Your task to perform on an android device: Go to display settings Image 0: 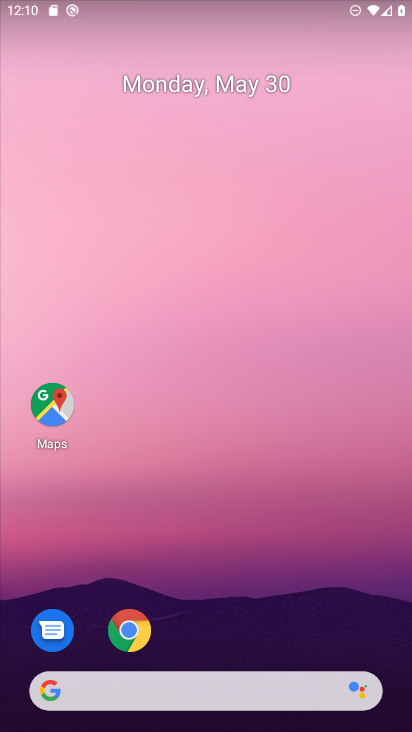
Step 0: drag from (178, 604) to (39, 206)
Your task to perform on an android device: Go to display settings Image 1: 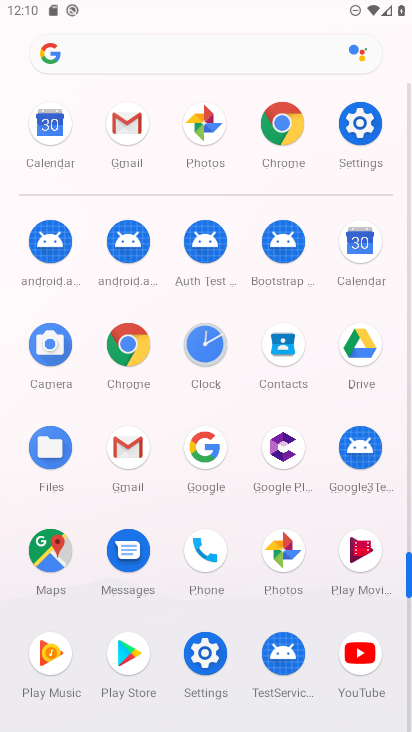
Step 1: click (356, 130)
Your task to perform on an android device: Go to display settings Image 2: 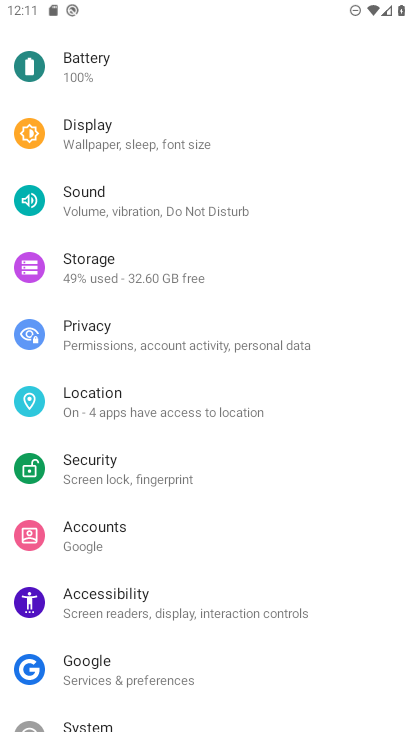
Step 2: click (85, 126)
Your task to perform on an android device: Go to display settings Image 3: 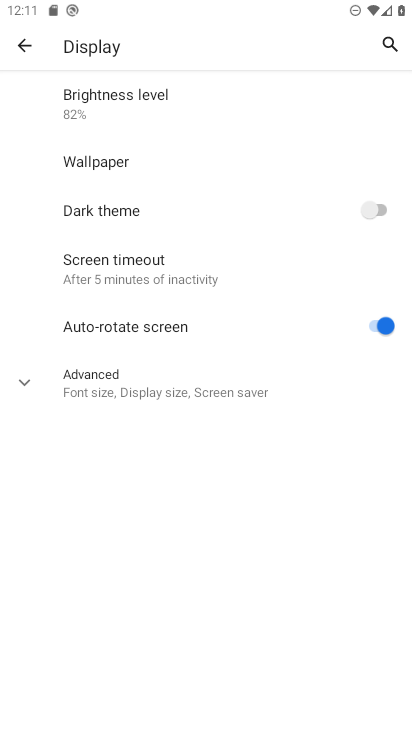
Step 3: task complete